Your task to perform on an android device: change the clock display to digital Image 0: 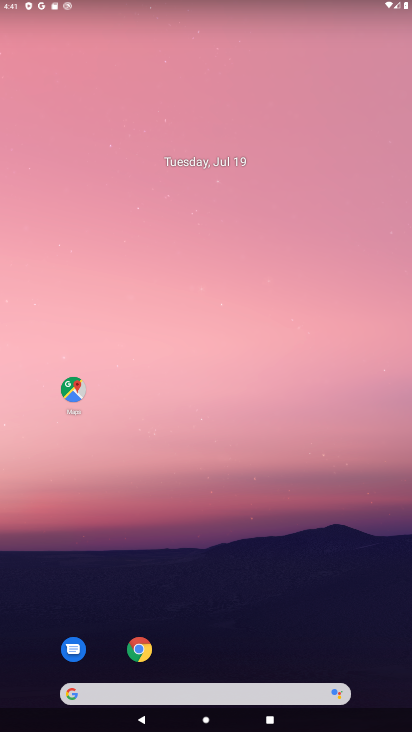
Step 0: press home button
Your task to perform on an android device: change the clock display to digital Image 1: 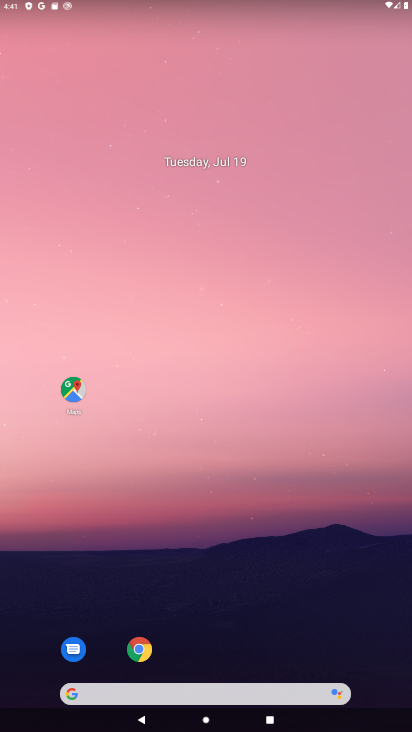
Step 1: drag from (236, 664) to (268, 108)
Your task to perform on an android device: change the clock display to digital Image 2: 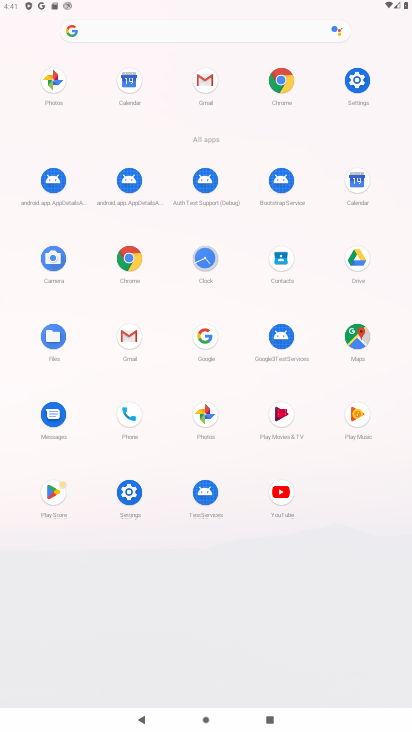
Step 2: click (204, 254)
Your task to perform on an android device: change the clock display to digital Image 3: 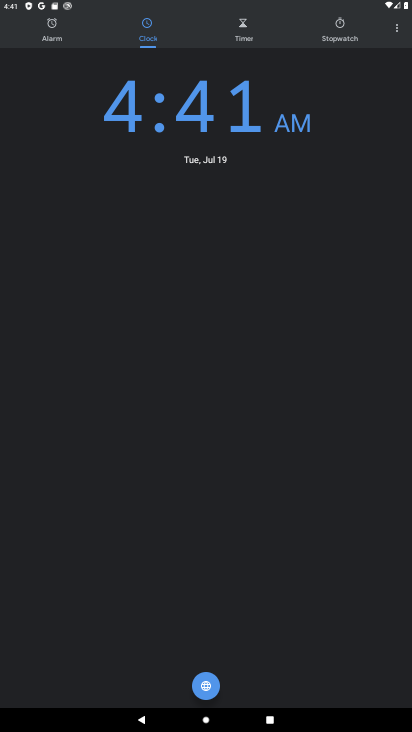
Step 3: click (395, 28)
Your task to perform on an android device: change the clock display to digital Image 4: 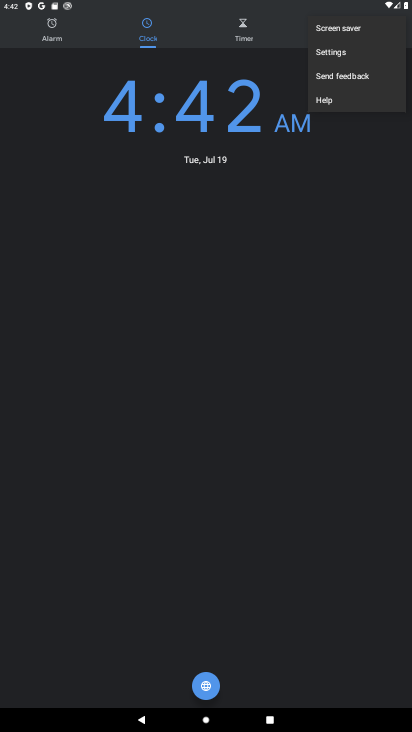
Step 4: click (354, 55)
Your task to perform on an android device: change the clock display to digital Image 5: 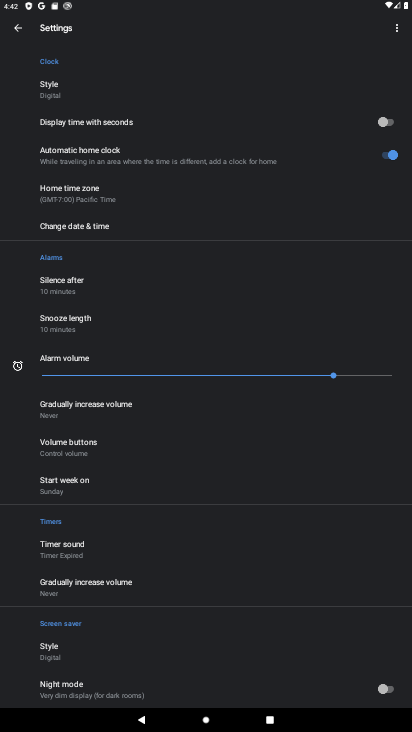
Step 5: click (74, 90)
Your task to perform on an android device: change the clock display to digital Image 6: 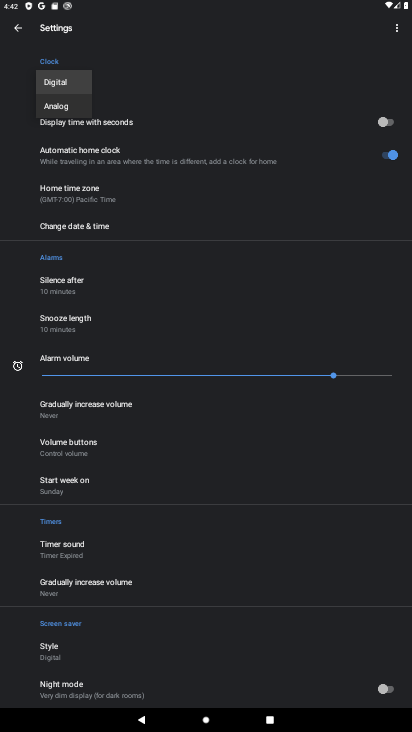
Step 6: click (75, 104)
Your task to perform on an android device: change the clock display to digital Image 7: 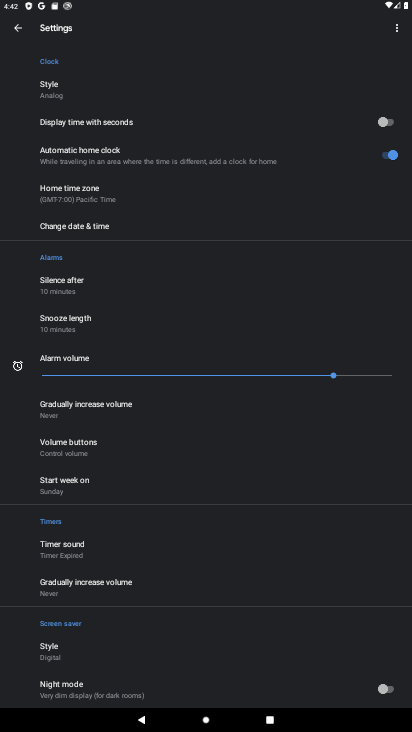
Step 7: click (64, 90)
Your task to perform on an android device: change the clock display to digital Image 8: 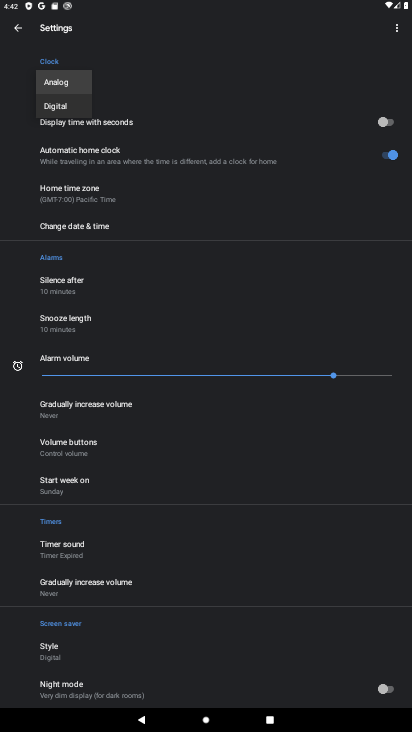
Step 8: click (71, 87)
Your task to perform on an android device: change the clock display to digital Image 9: 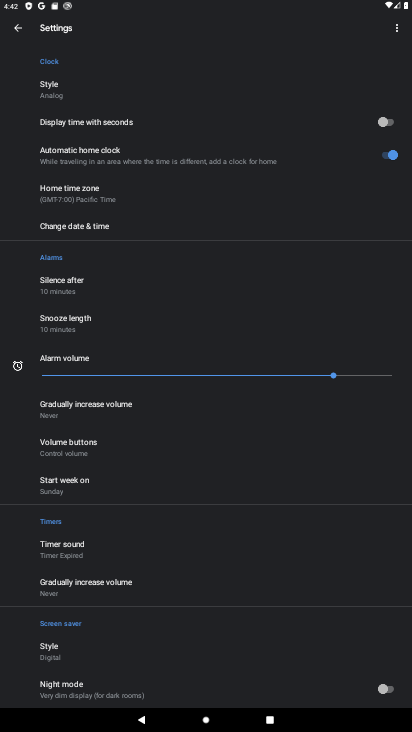
Step 9: click (71, 87)
Your task to perform on an android device: change the clock display to digital Image 10: 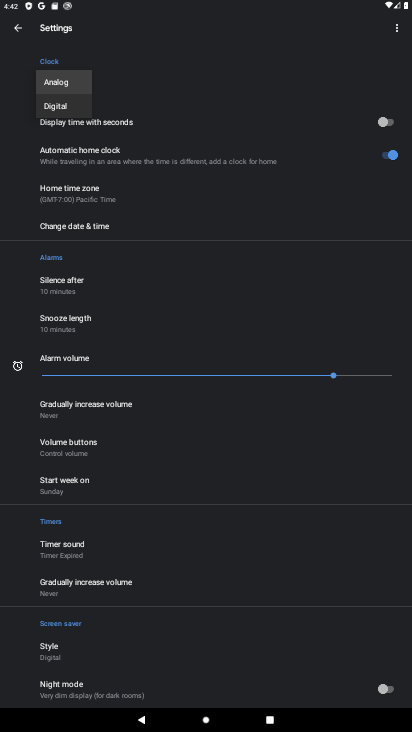
Step 10: click (71, 104)
Your task to perform on an android device: change the clock display to digital Image 11: 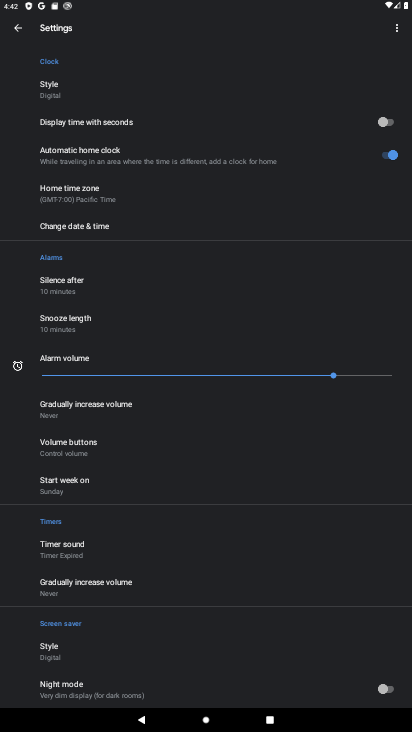
Step 11: task complete